Your task to perform on an android device: Go to notification settings Image 0: 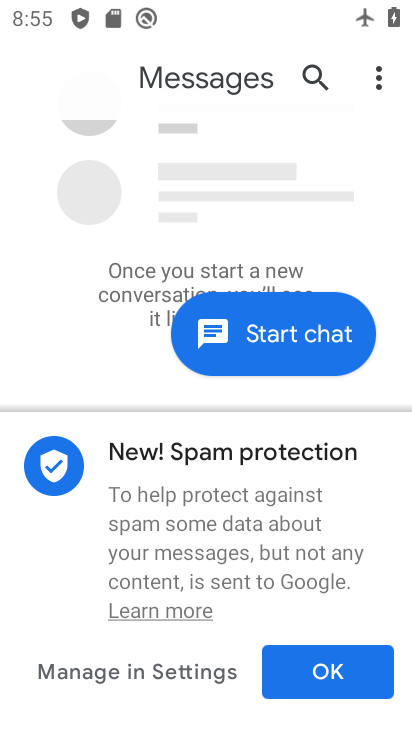
Step 0: press home button
Your task to perform on an android device: Go to notification settings Image 1: 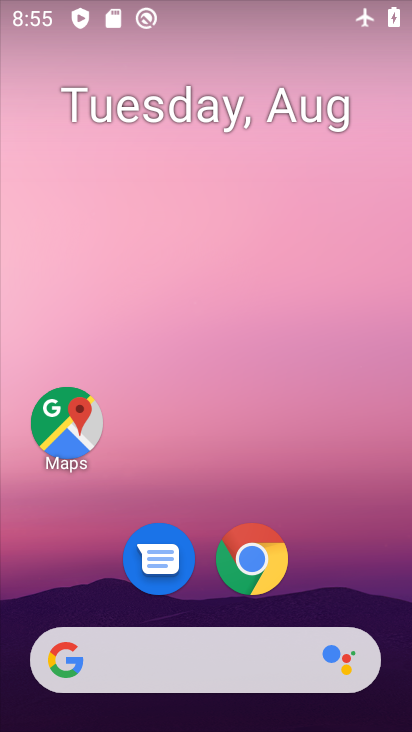
Step 1: drag from (332, 584) to (302, 74)
Your task to perform on an android device: Go to notification settings Image 2: 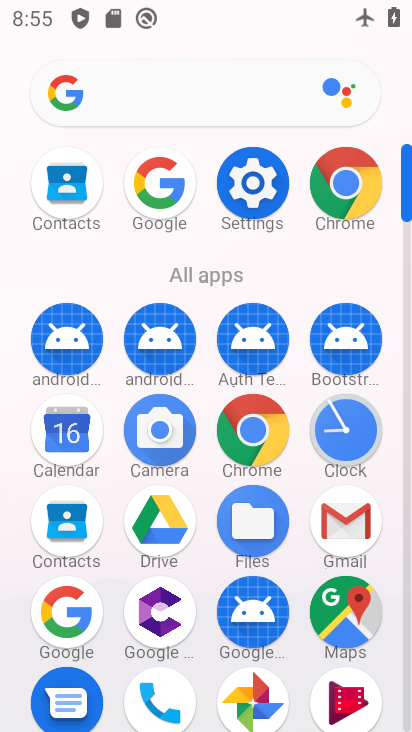
Step 2: click (248, 183)
Your task to perform on an android device: Go to notification settings Image 3: 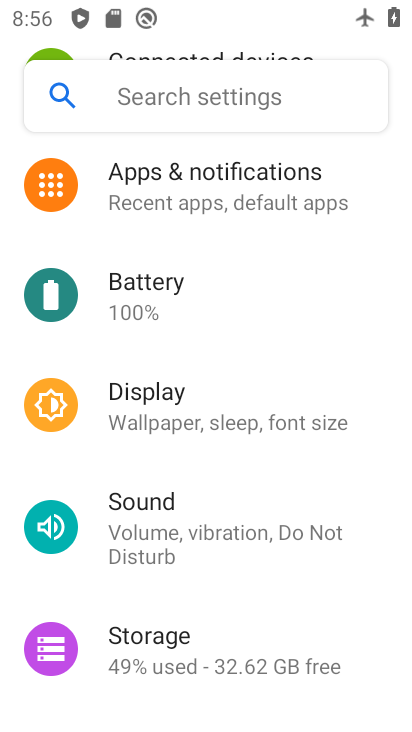
Step 3: drag from (281, 594) to (280, 495)
Your task to perform on an android device: Go to notification settings Image 4: 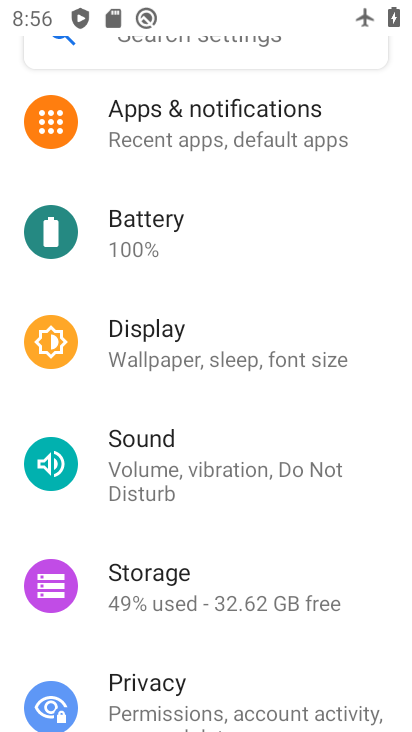
Step 4: click (245, 113)
Your task to perform on an android device: Go to notification settings Image 5: 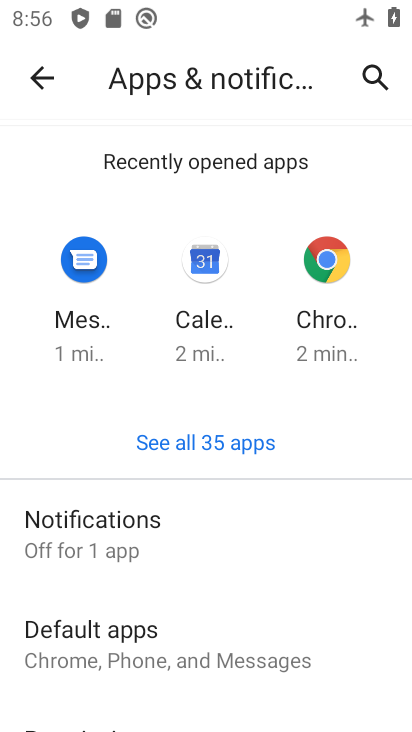
Step 5: click (103, 519)
Your task to perform on an android device: Go to notification settings Image 6: 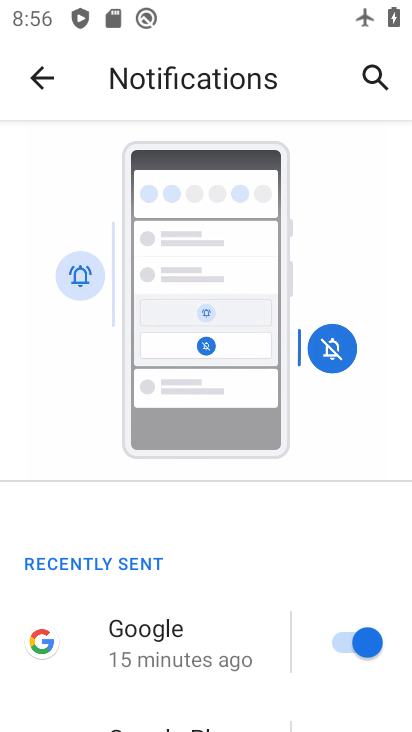
Step 6: task complete